Your task to perform on an android device: Search for Mexican restaurants on Maps Image 0: 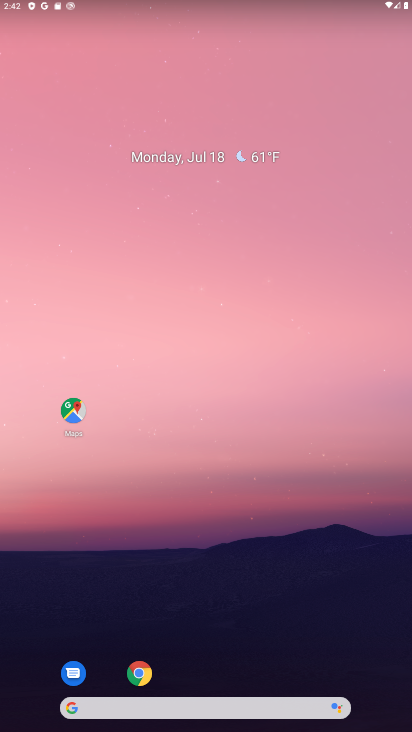
Step 0: drag from (198, 535) to (203, 134)
Your task to perform on an android device: Search for Mexican restaurants on Maps Image 1: 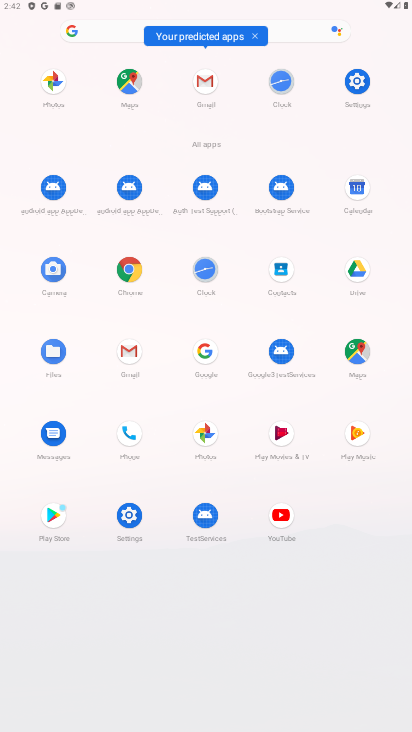
Step 1: click (360, 359)
Your task to perform on an android device: Search for Mexican restaurants on Maps Image 2: 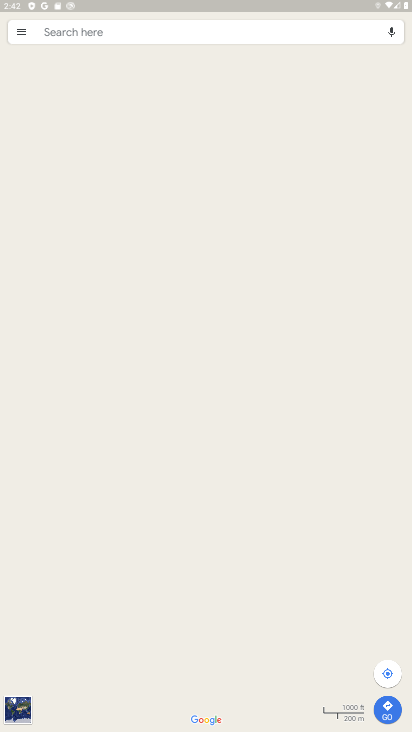
Step 2: click (106, 25)
Your task to perform on an android device: Search for Mexican restaurants on Maps Image 3: 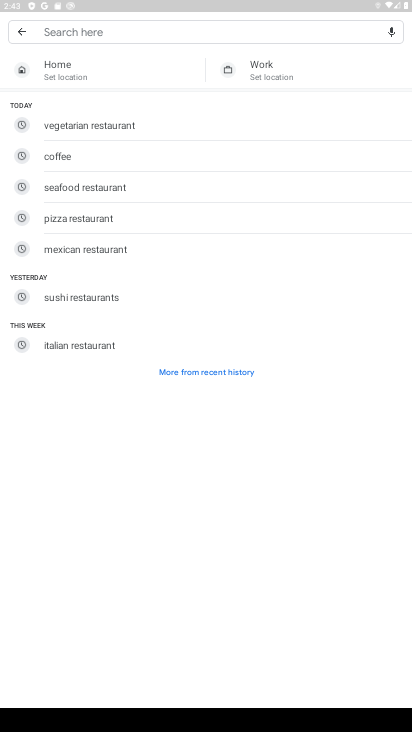
Step 3: type "Mexican restaurants"
Your task to perform on an android device: Search for Mexican restaurants on Maps Image 4: 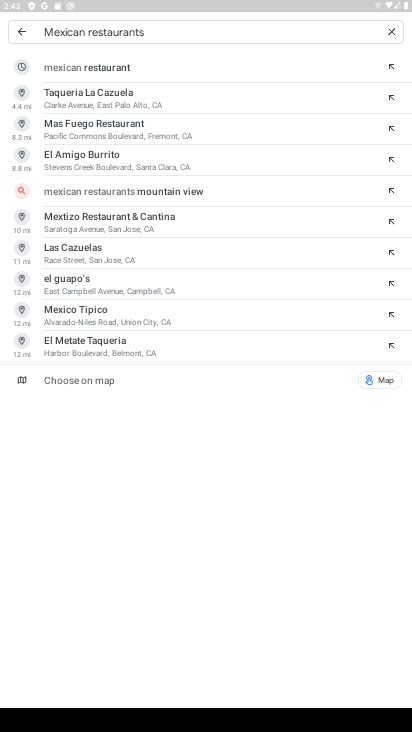
Step 4: click (130, 67)
Your task to perform on an android device: Search for Mexican restaurants on Maps Image 5: 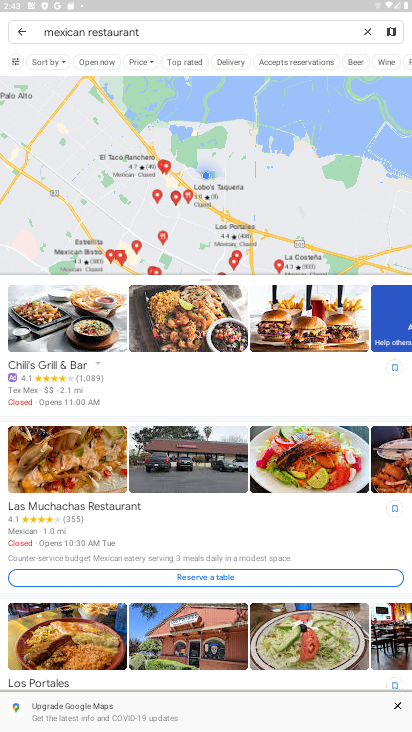
Step 5: task complete